Your task to perform on an android device: When is my next meeting? Image 0: 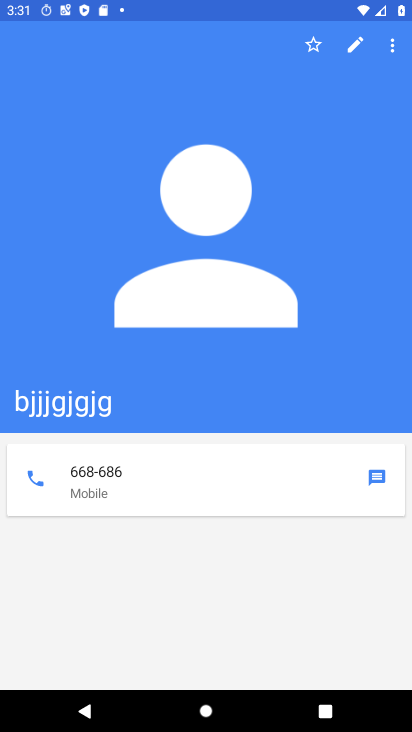
Step 0: press home button
Your task to perform on an android device: When is my next meeting? Image 1: 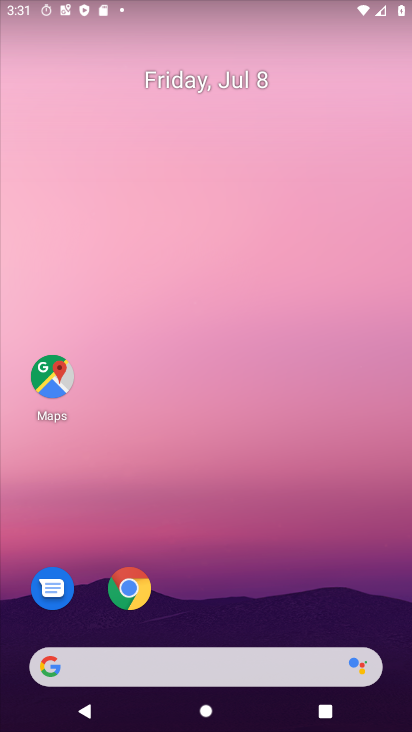
Step 1: drag from (241, 626) to (196, 15)
Your task to perform on an android device: When is my next meeting? Image 2: 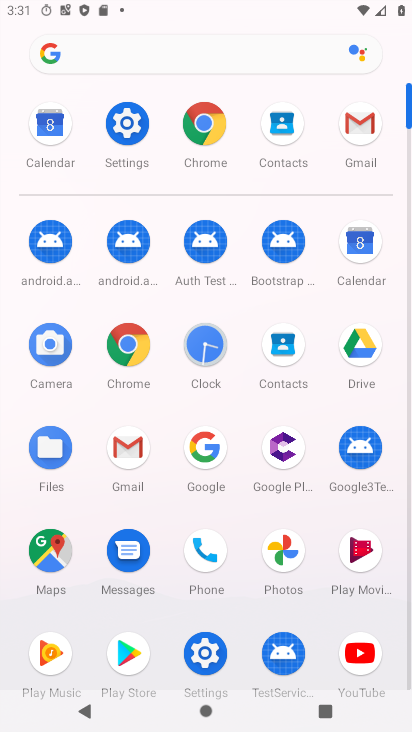
Step 2: click (367, 246)
Your task to perform on an android device: When is my next meeting? Image 3: 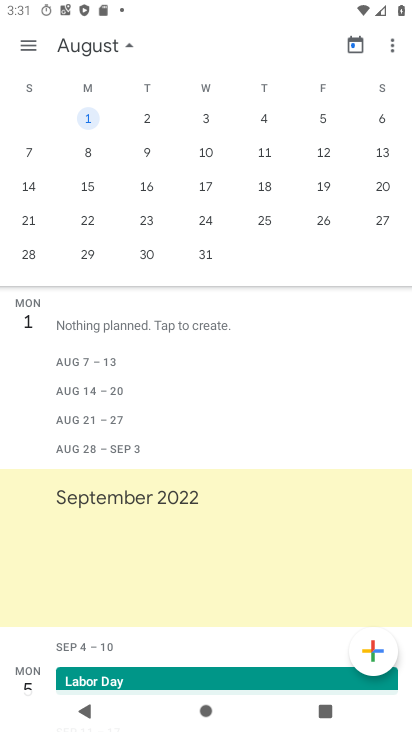
Step 3: click (29, 37)
Your task to perform on an android device: When is my next meeting? Image 4: 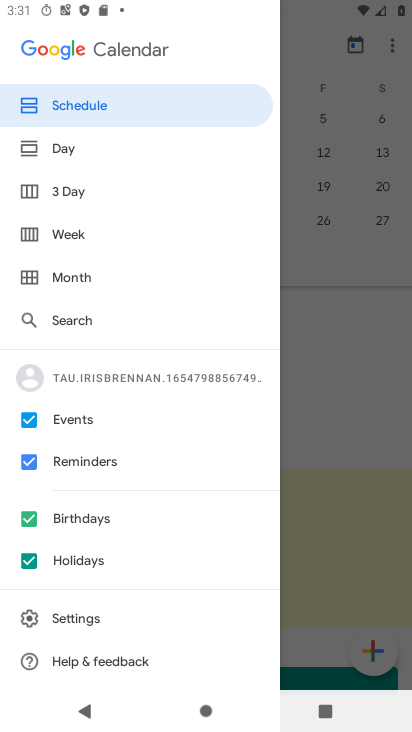
Step 4: click (82, 422)
Your task to perform on an android device: When is my next meeting? Image 5: 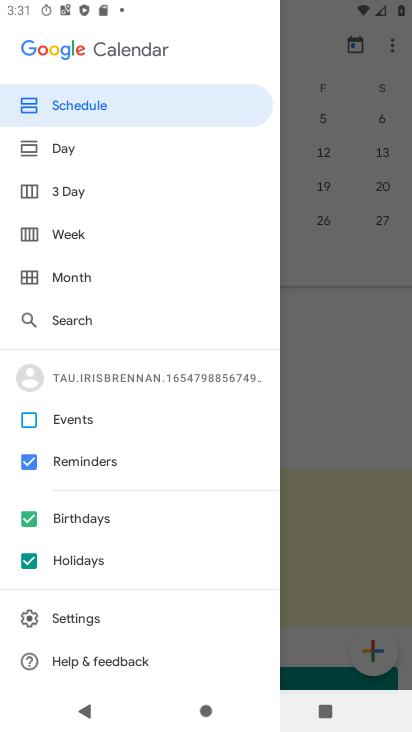
Step 5: click (82, 422)
Your task to perform on an android device: When is my next meeting? Image 6: 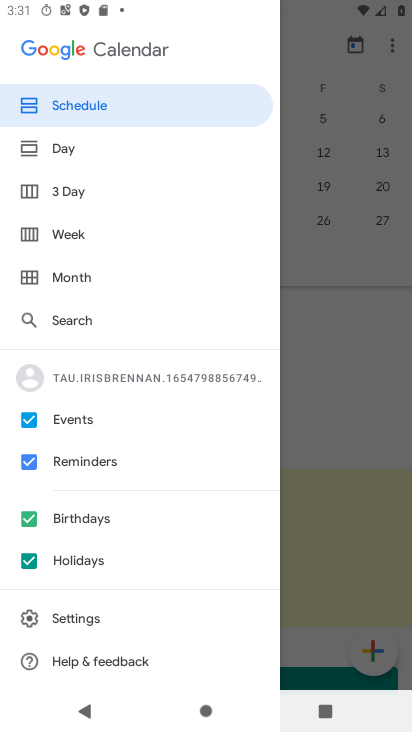
Step 6: click (320, 392)
Your task to perform on an android device: When is my next meeting? Image 7: 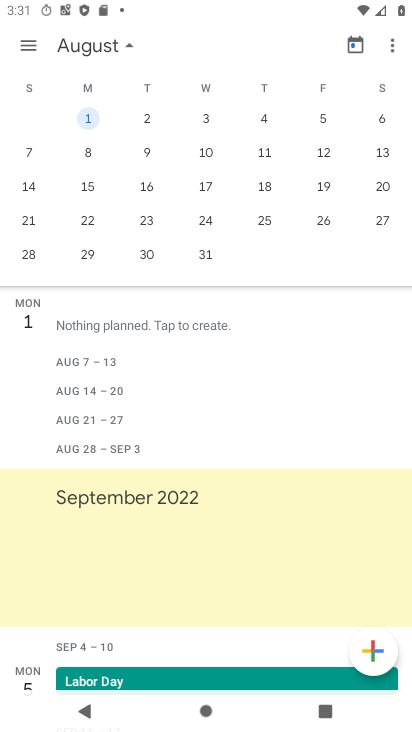
Step 7: task complete